Your task to perform on an android device: Go to calendar. Show me events next week Image 0: 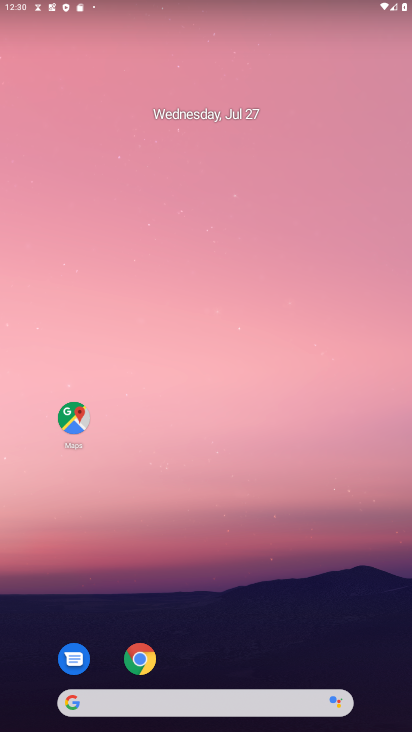
Step 0: press home button
Your task to perform on an android device: Go to calendar. Show me events next week Image 1: 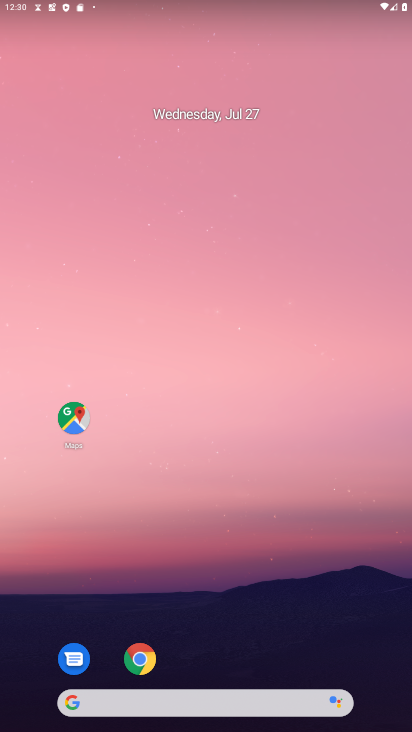
Step 1: drag from (220, 668) to (212, 144)
Your task to perform on an android device: Go to calendar. Show me events next week Image 2: 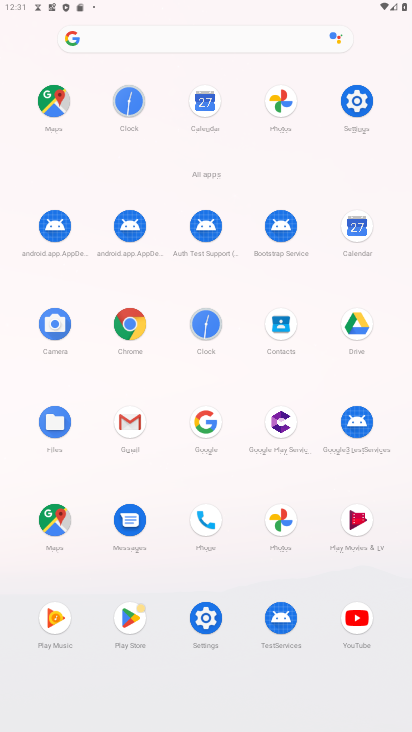
Step 2: click (349, 225)
Your task to perform on an android device: Go to calendar. Show me events next week Image 3: 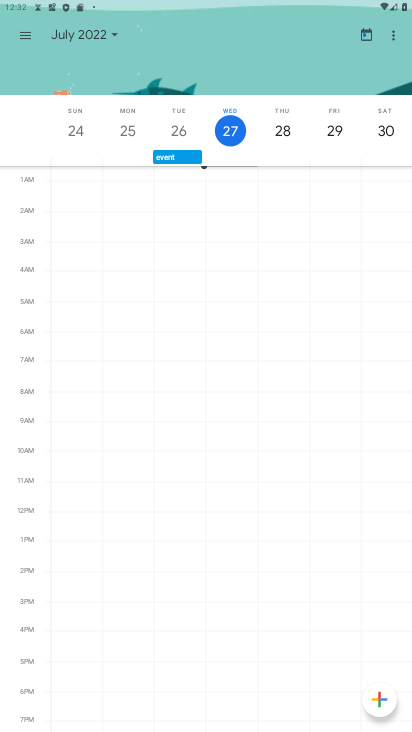
Step 3: task complete